Your task to perform on an android device: turn off airplane mode Image 0: 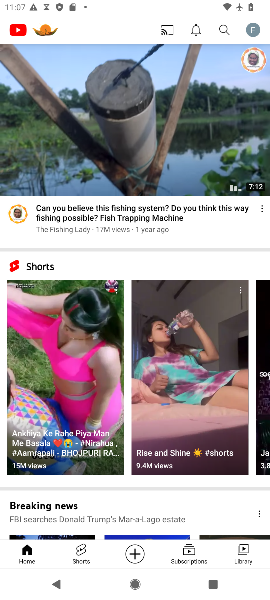
Step 0: press back button
Your task to perform on an android device: turn off airplane mode Image 1: 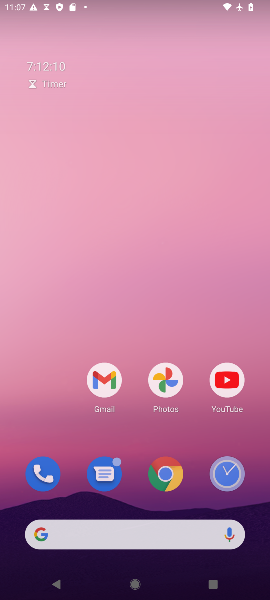
Step 1: press home button
Your task to perform on an android device: turn off airplane mode Image 2: 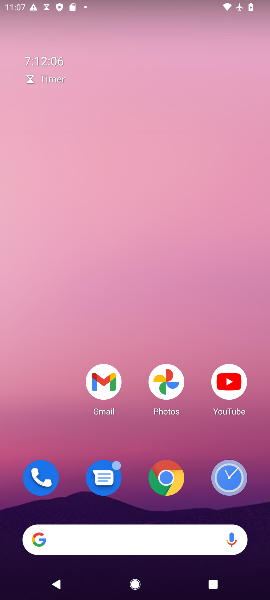
Step 2: drag from (209, 447) to (177, 42)
Your task to perform on an android device: turn off airplane mode Image 3: 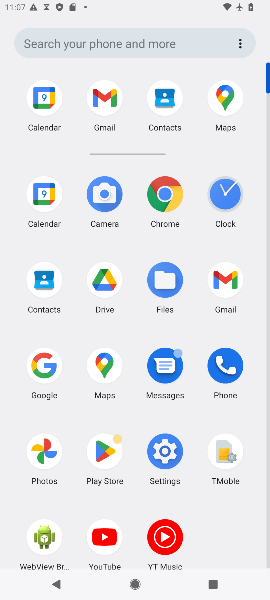
Step 3: click (165, 460)
Your task to perform on an android device: turn off airplane mode Image 4: 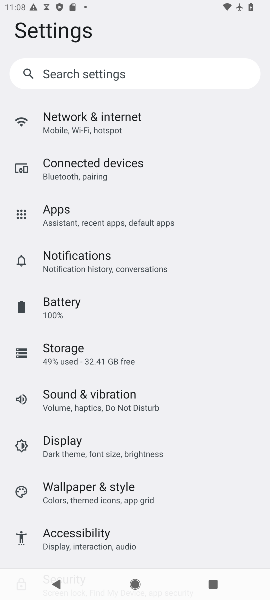
Step 4: click (111, 135)
Your task to perform on an android device: turn off airplane mode Image 5: 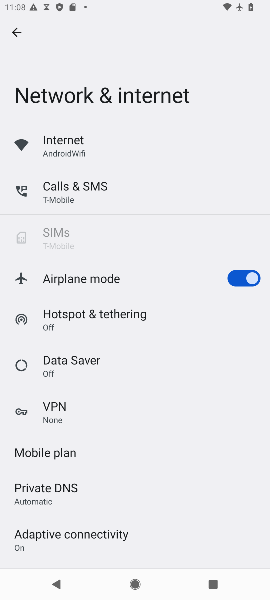
Step 5: click (237, 264)
Your task to perform on an android device: turn off airplane mode Image 6: 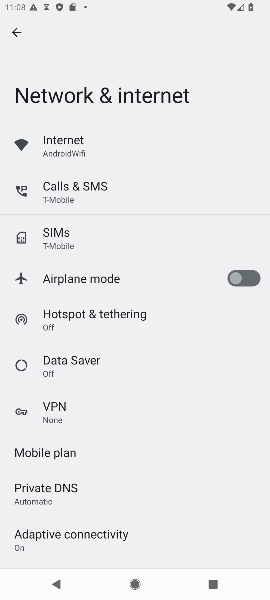
Step 6: task complete